Your task to perform on an android device: check the backup settings in the google photos Image 0: 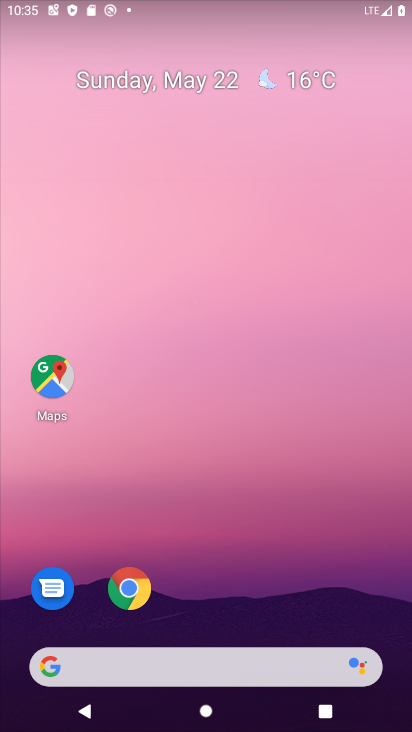
Step 0: drag from (227, 539) to (231, 252)
Your task to perform on an android device: check the backup settings in the google photos Image 1: 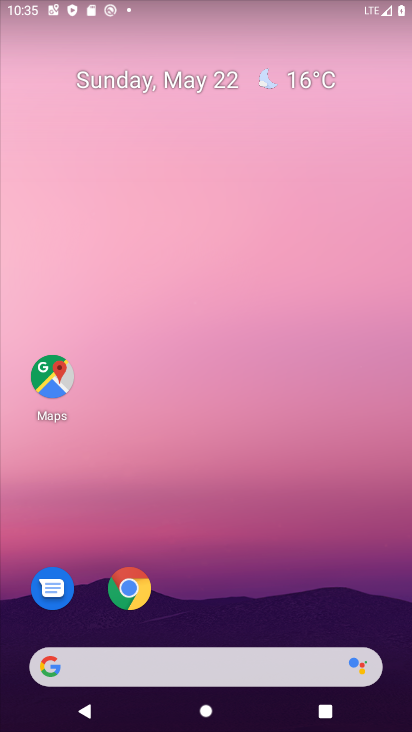
Step 1: drag from (227, 617) to (238, 186)
Your task to perform on an android device: check the backup settings in the google photos Image 2: 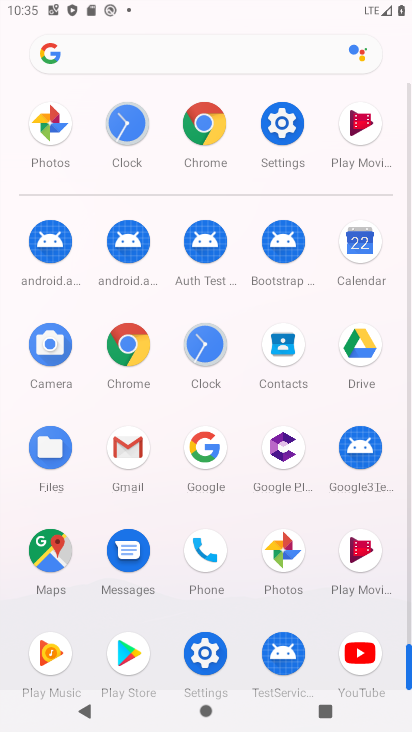
Step 2: click (271, 557)
Your task to perform on an android device: check the backup settings in the google photos Image 3: 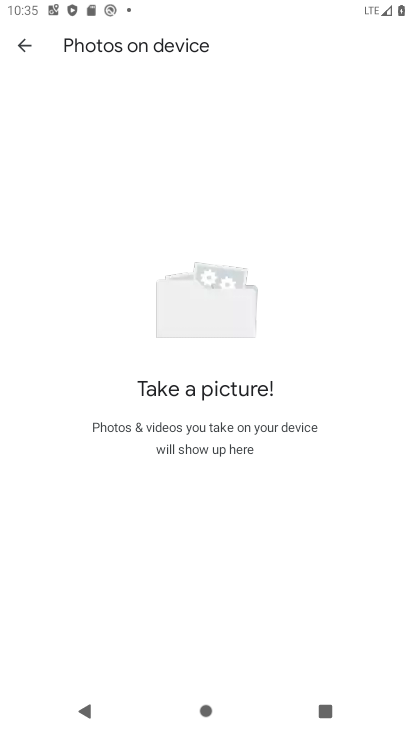
Step 3: click (20, 39)
Your task to perform on an android device: check the backup settings in the google photos Image 4: 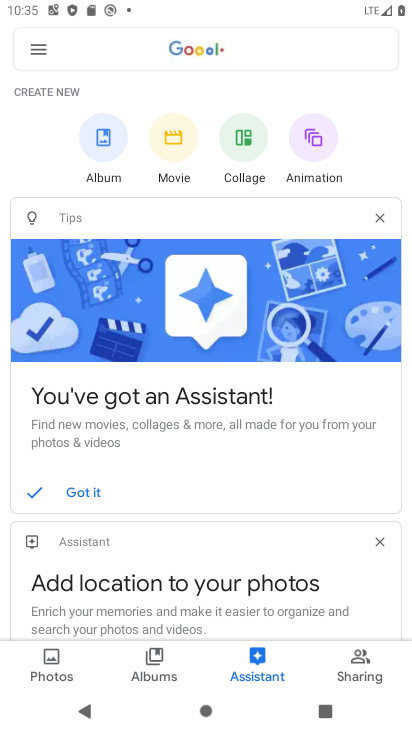
Step 4: click (38, 43)
Your task to perform on an android device: check the backup settings in the google photos Image 5: 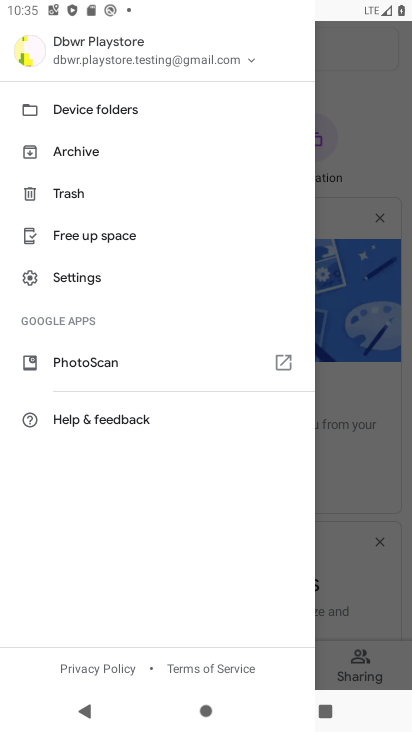
Step 5: click (101, 278)
Your task to perform on an android device: check the backup settings in the google photos Image 6: 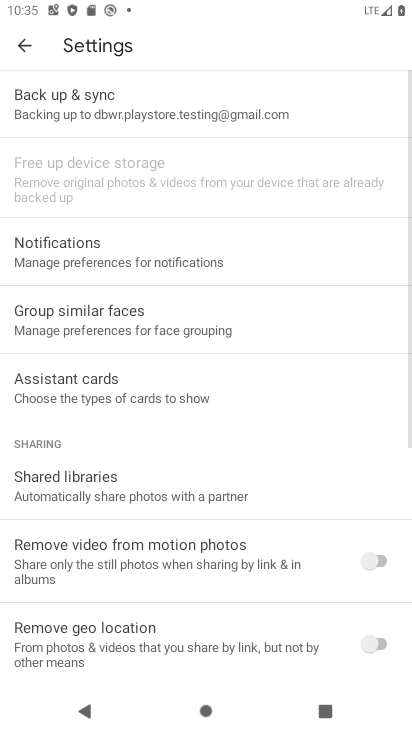
Step 6: click (81, 115)
Your task to perform on an android device: check the backup settings in the google photos Image 7: 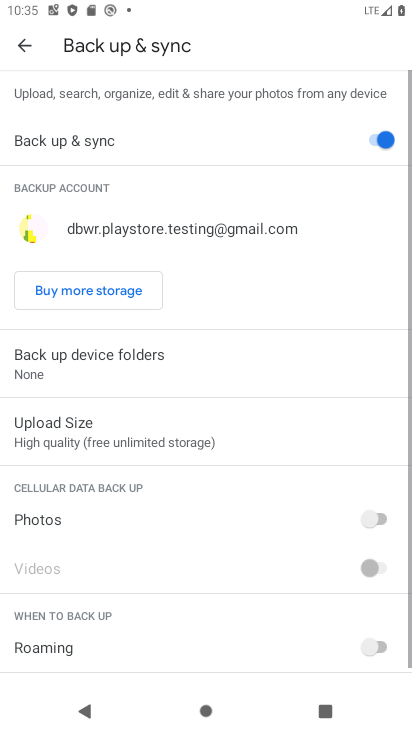
Step 7: task complete